Your task to perform on an android device: Go to notification settings Image 0: 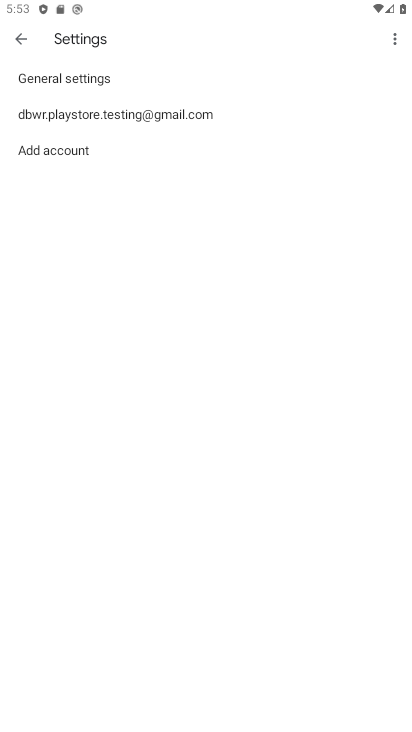
Step 0: press home button
Your task to perform on an android device: Go to notification settings Image 1: 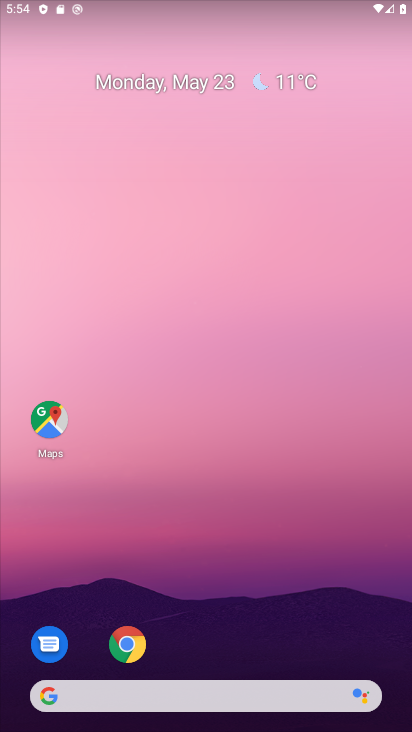
Step 1: drag from (236, 577) to (222, 217)
Your task to perform on an android device: Go to notification settings Image 2: 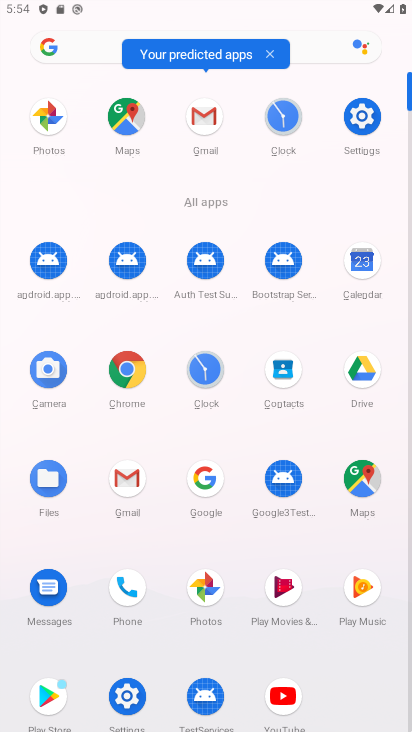
Step 2: click (121, 702)
Your task to perform on an android device: Go to notification settings Image 3: 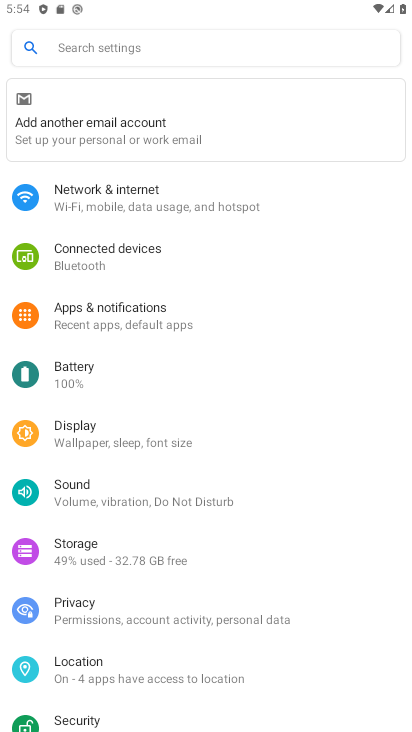
Step 3: click (163, 309)
Your task to perform on an android device: Go to notification settings Image 4: 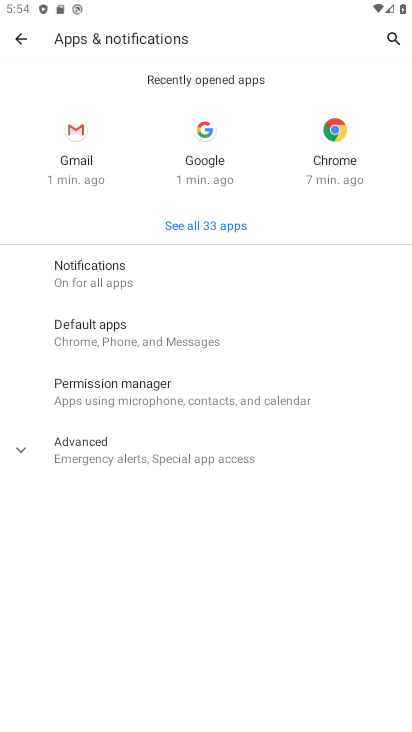
Step 4: click (115, 283)
Your task to perform on an android device: Go to notification settings Image 5: 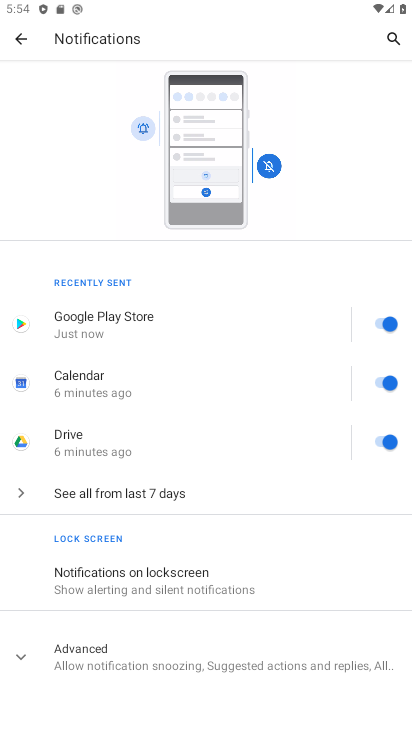
Step 5: task complete